Your task to perform on an android device: Go to ESPN.com Image 0: 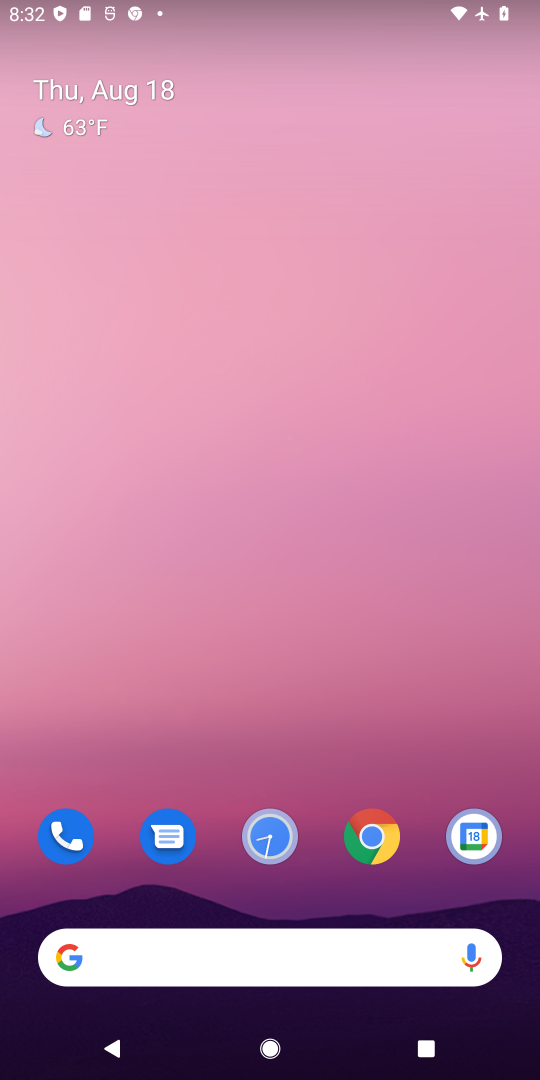
Step 0: drag from (445, 760) to (424, 113)
Your task to perform on an android device: Go to ESPN.com Image 1: 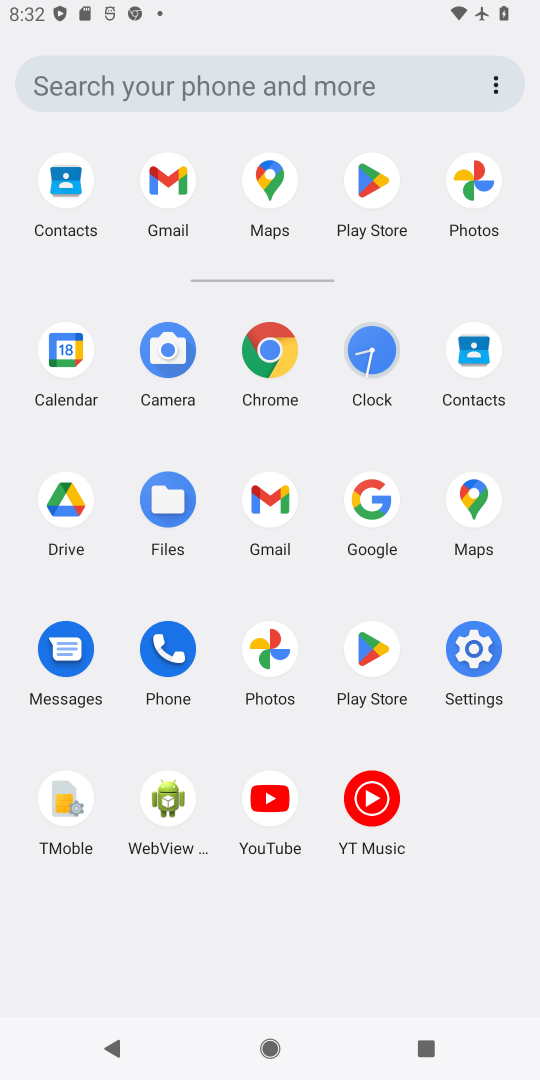
Step 1: click (265, 346)
Your task to perform on an android device: Go to ESPN.com Image 2: 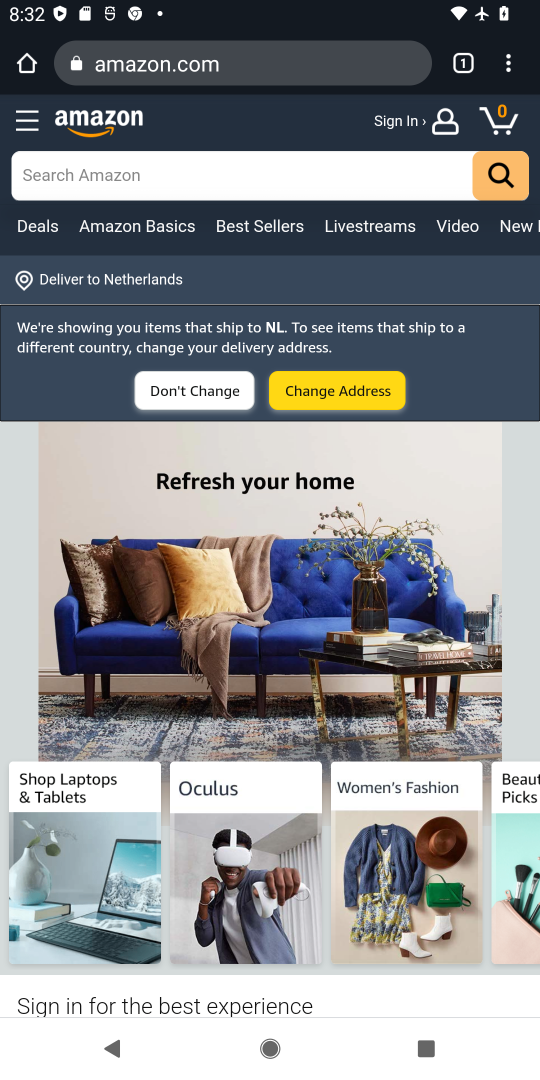
Step 2: click (299, 53)
Your task to perform on an android device: Go to ESPN.com Image 3: 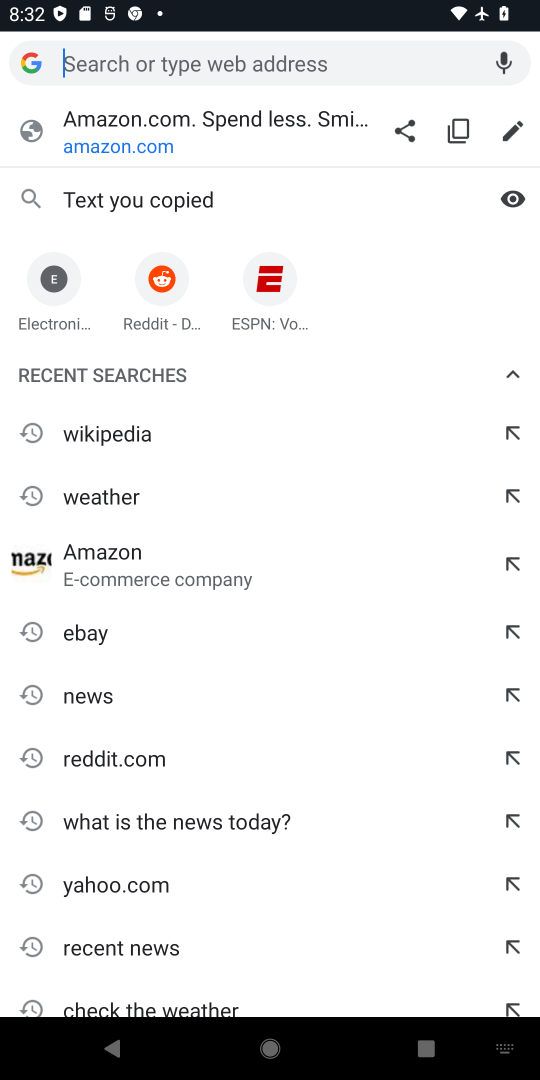
Step 3: type "espn.com"
Your task to perform on an android device: Go to ESPN.com Image 4: 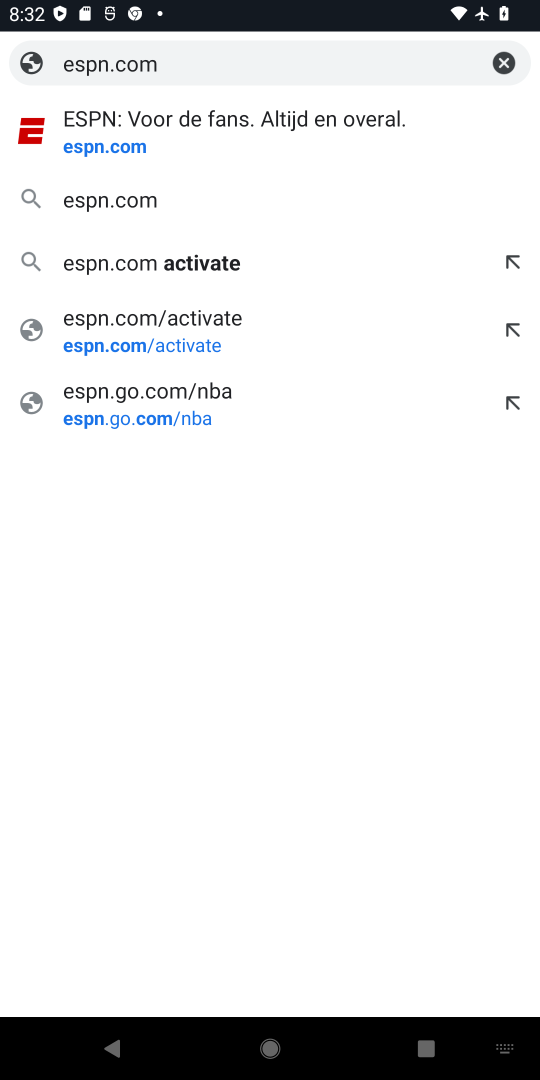
Step 4: click (90, 134)
Your task to perform on an android device: Go to ESPN.com Image 5: 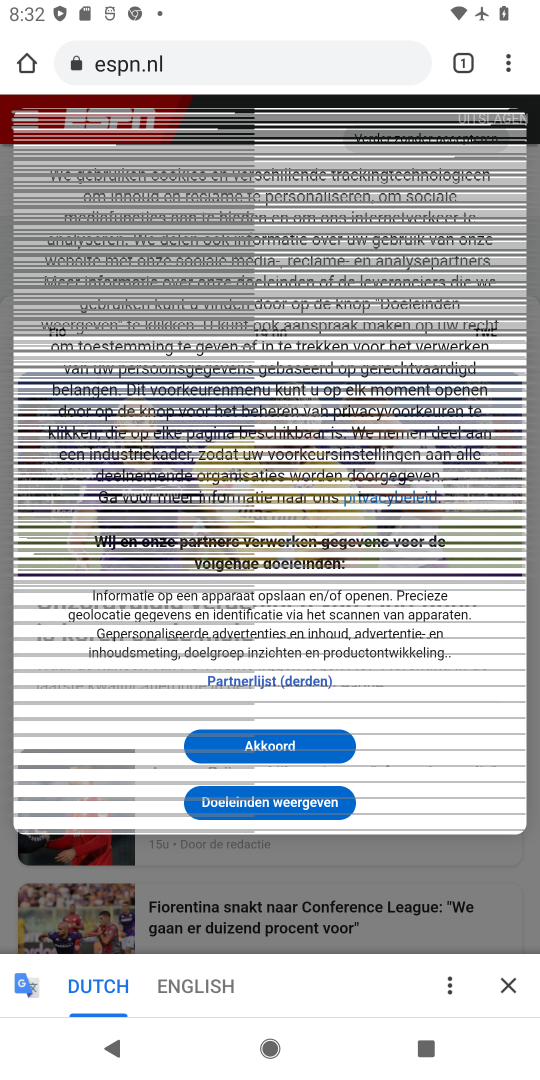
Step 5: task complete